Your task to perform on an android device: Open maps Image 0: 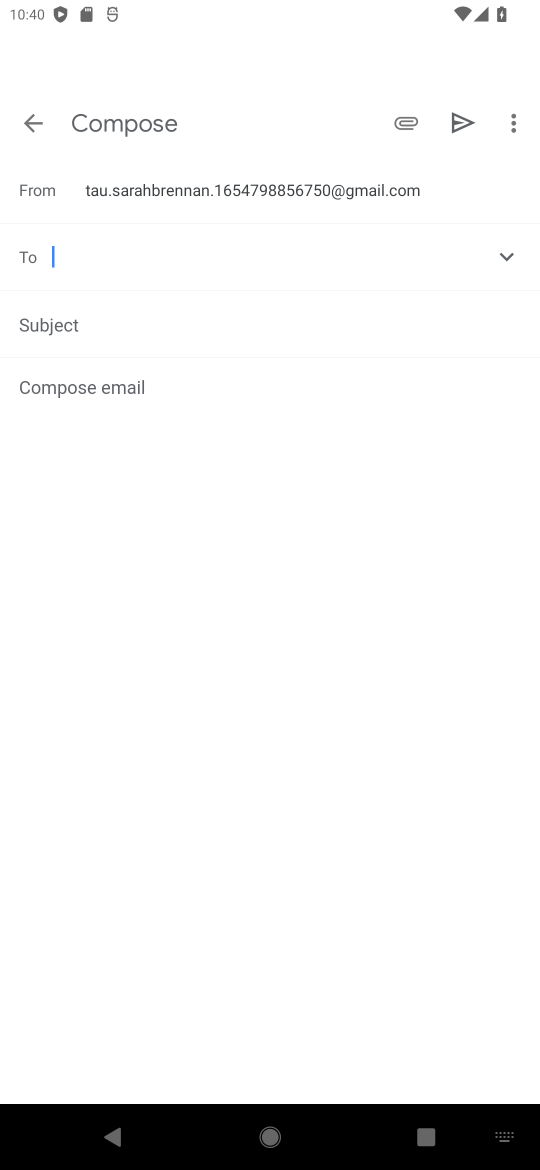
Step 0: press home button
Your task to perform on an android device: Open maps Image 1: 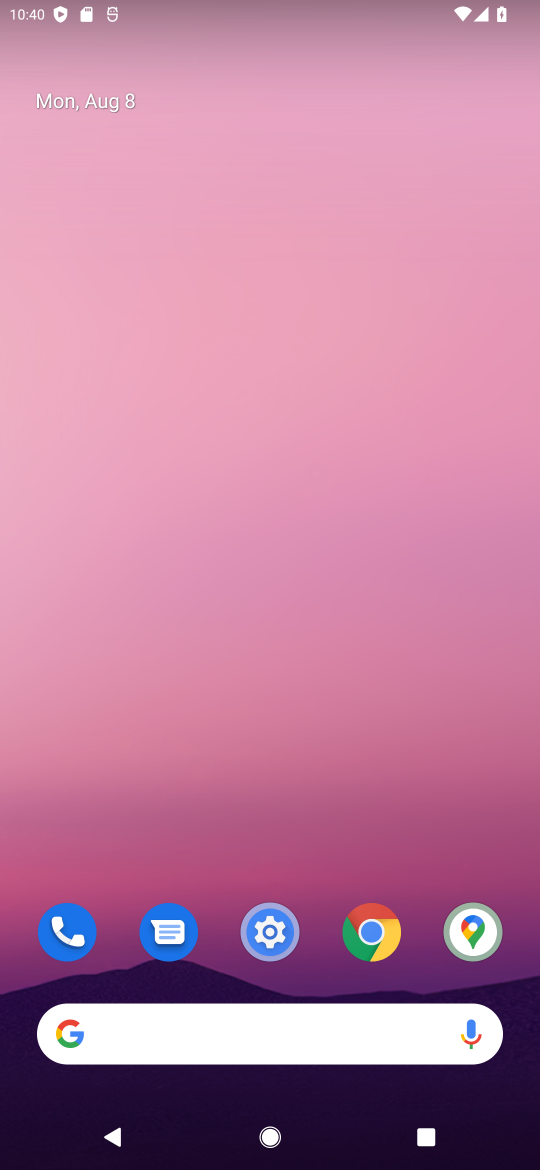
Step 1: click (491, 913)
Your task to perform on an android device: Open maps Image 2: 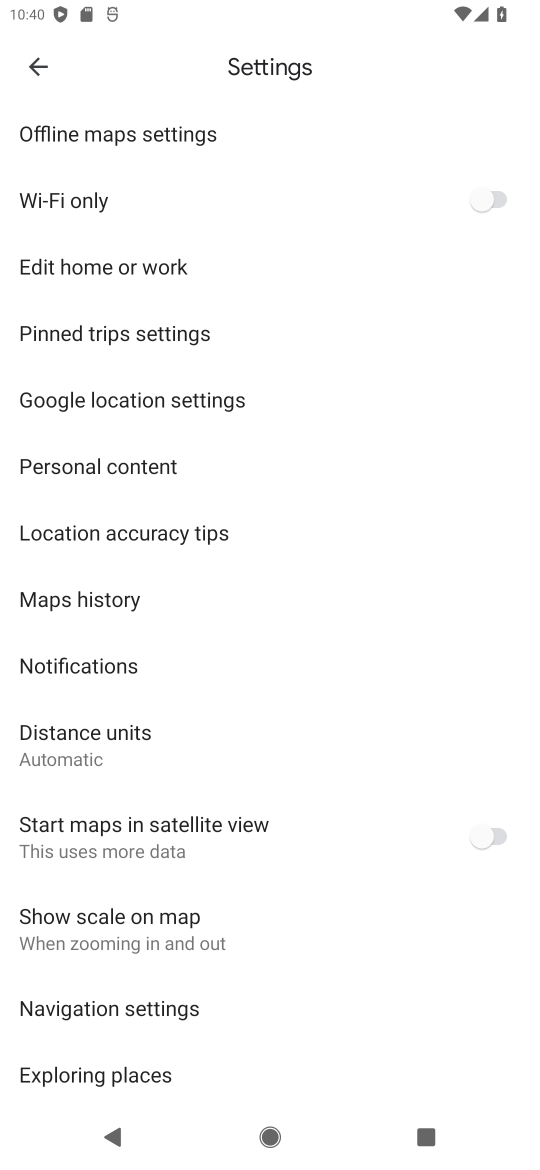
Step 2: click (49, 65)
Your task to perform on an android device: Open maps Image 3: 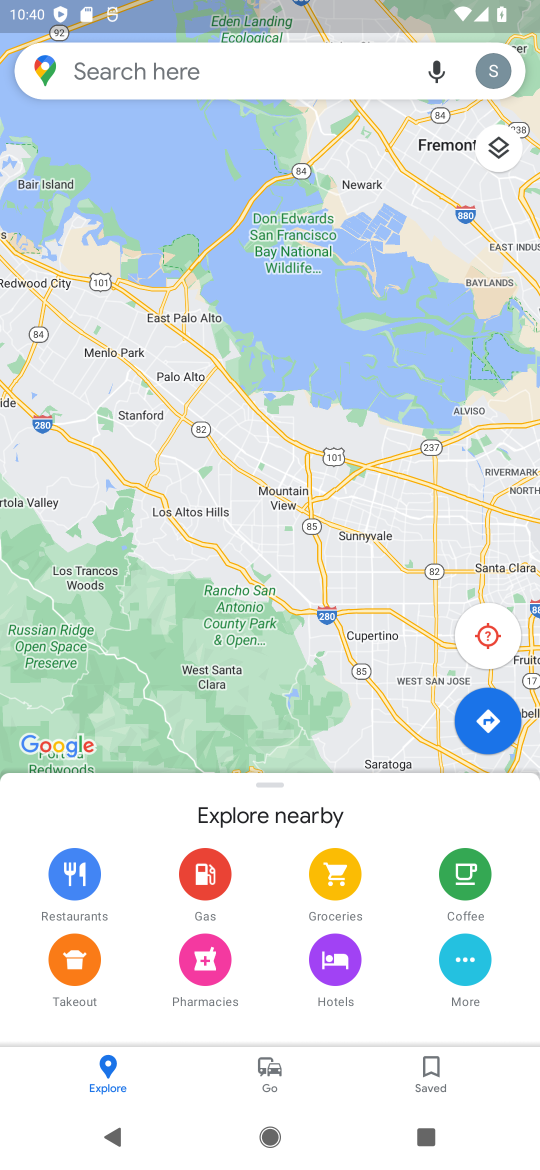
Step 3: task complete